Your task to perform on an android device: Go to display settings Image 0: 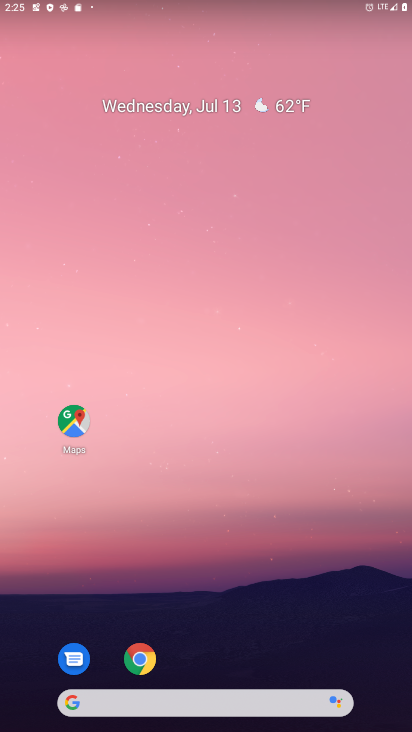
Step 0: drag from (211, 729) to (212, 111)
Your task to perform on an android device: Go to display settings Image 1: 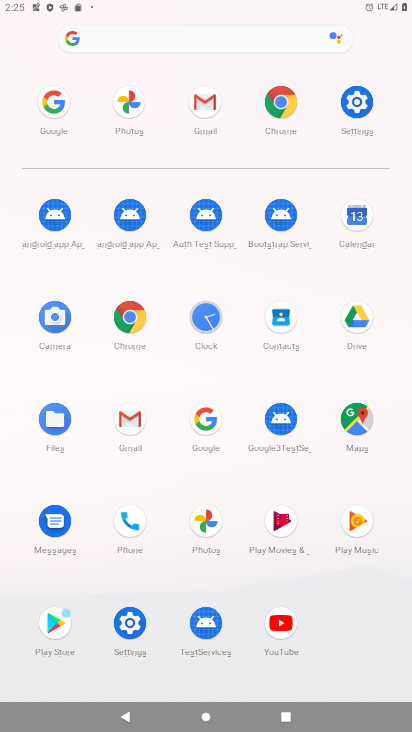
Step 1: click (358, 96)
Your task to perform on an android device: Go to display settings Image 2: 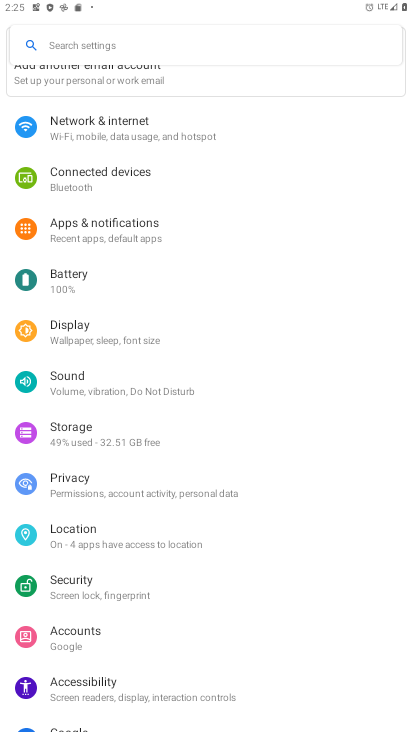
Step 2: click (78, 330)
Your task to perform on an android device: Go to display settings Image 3: 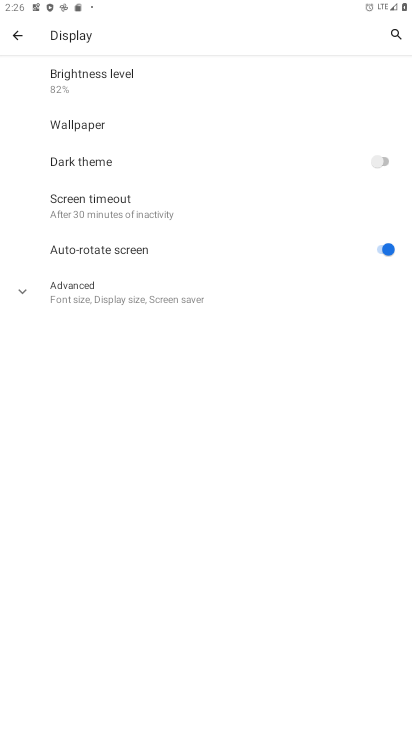
Step 3: task complete